Your task to perform on an android device: Set the phone to "Do not disturb". Image 0: 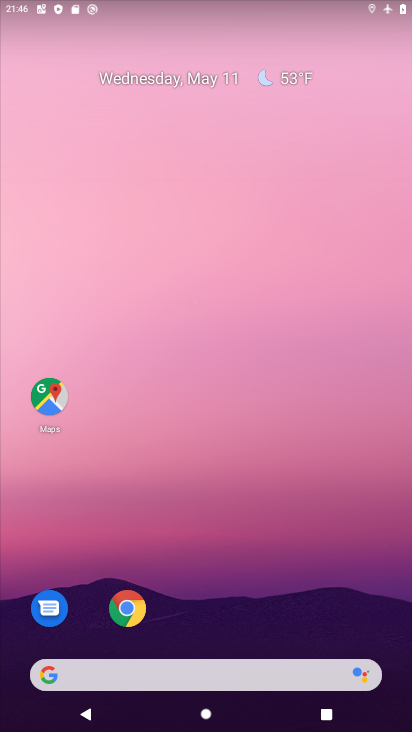
Step 0: drag from (234, 545) to (260, 202)
Your task to perform on an android device: Set the phone to "Do not disturb". Image 1: 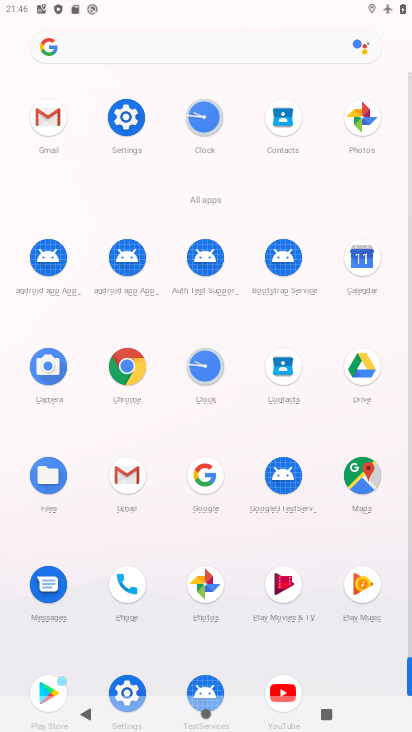
Step 1: click (125, 131)
Your task to perform on an android device: Set the phone to "Do not disturb". Image 2: 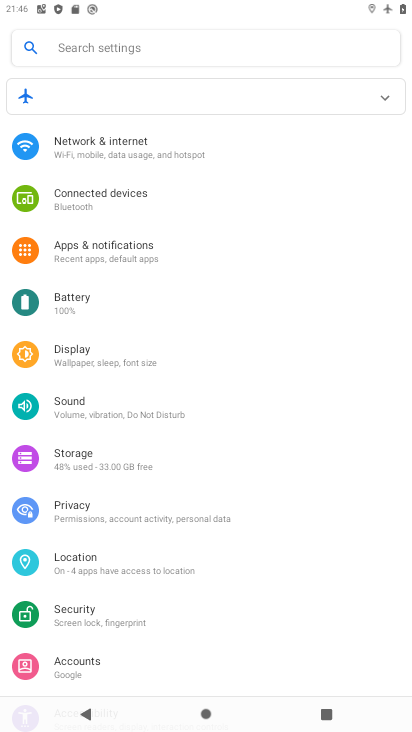
Step 2: click (174, 402)
Your task to perform on an android device: Set the phone to "Do not disturb". Image 3: 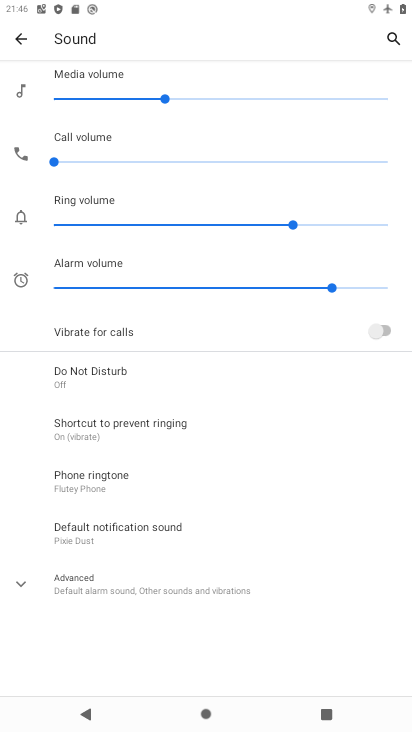
Step 3: click (167, 386)
Your task to perform on an android device: Set the phone to "Do not disturb". Image 4: 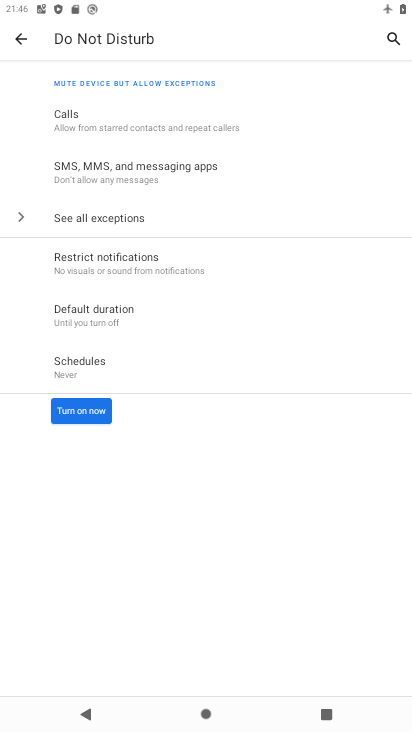
Step 4: click (84, 416)
Your task to perform on an android device: Set the phone to "Do not disturb". Image 5: 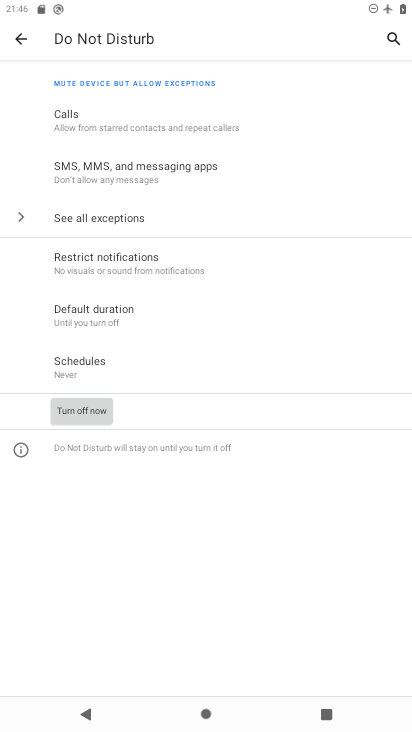
Step 5: task complete